Your task to perform on an android device: turn on javascript in the chrome app Image 0: 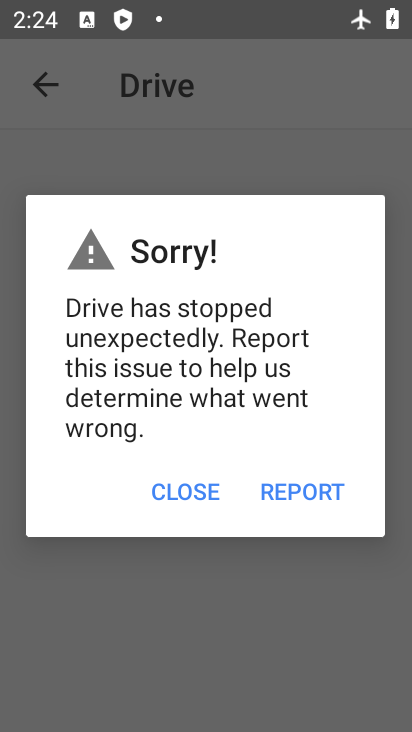
Step 0: press home button
Your task to perform on an android device: turn on javascript in the chrome app Image 1: 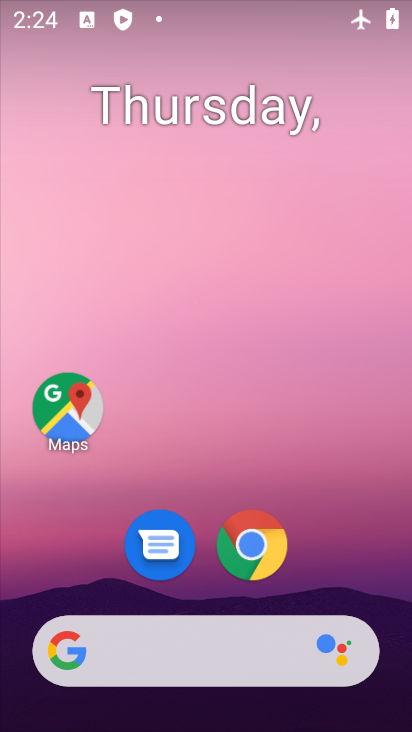
Step 1: drag from (234, 688) to (235, 162)
Your task to perform on an android device: turn on javascript in the chrome app Image 2: 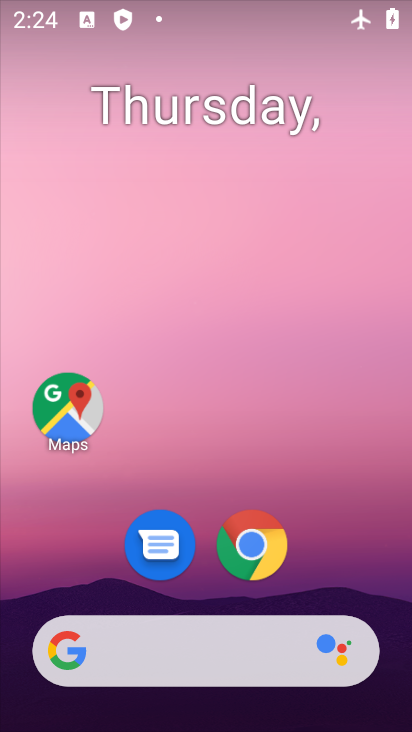
Step 2: click (270, 550)
Your task to perform on an android device: turn on javascript in the chrome app Image 3: 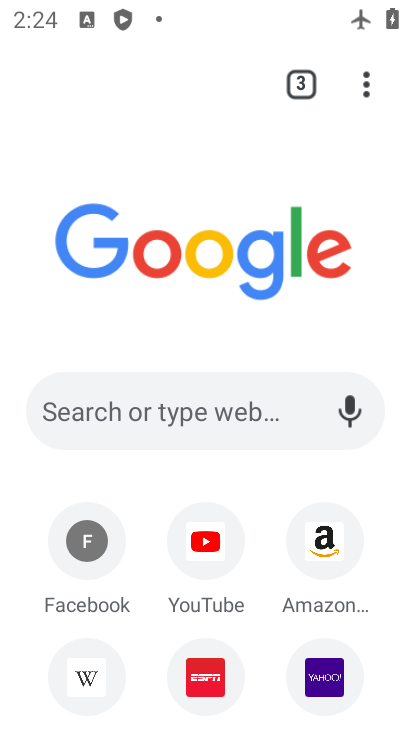
Step 3: click (366, 96)
Your task to perform on an android device: turn on javascript in the chrome app Image 4: 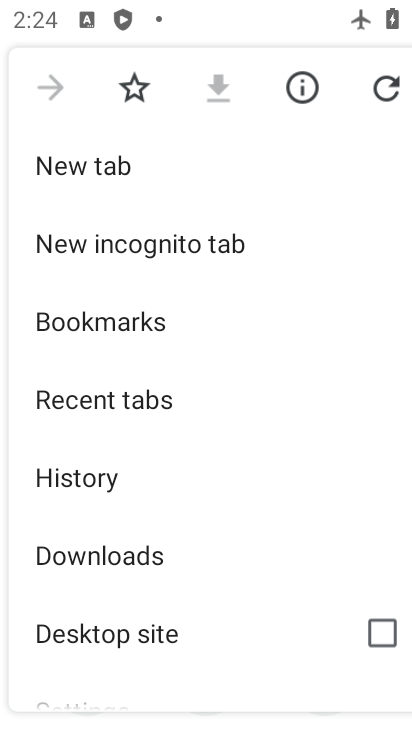
Step 4: drag from (239, 642) to (261, 215)
Your task to perform on an android device: turn on javascript in the chrome app Image 5: 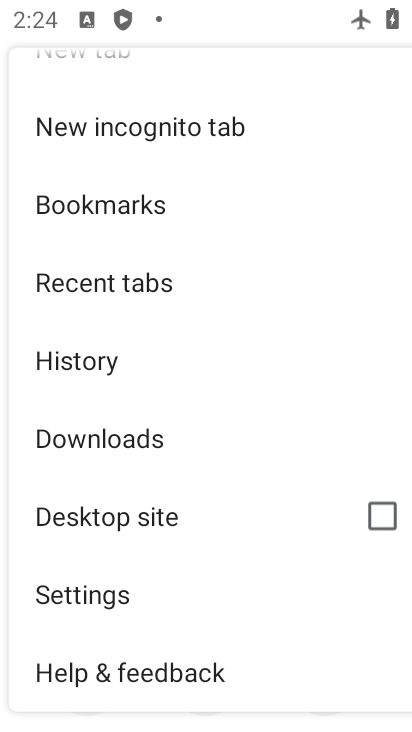
Step 5: click (99, 606)
Your task to perform on an android device: turn on javascript in the chrome app Image 6: 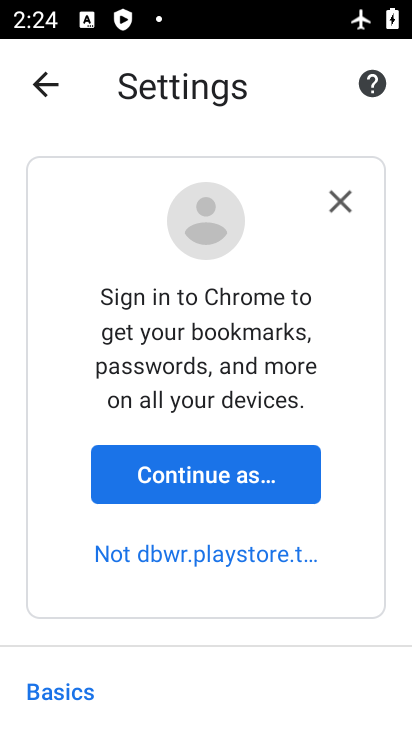
Step 6: click (330, 204)
Your task to perform on an android device: turn on javascript in the chrome app Image 7: 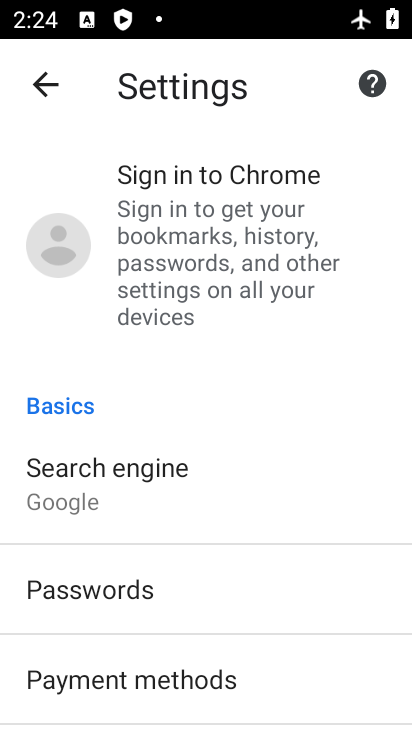
Step 7: drag from (293, 489) to (289, 137)
Your task to perform on an android device: turn on javascript in the chrome app Image 8: 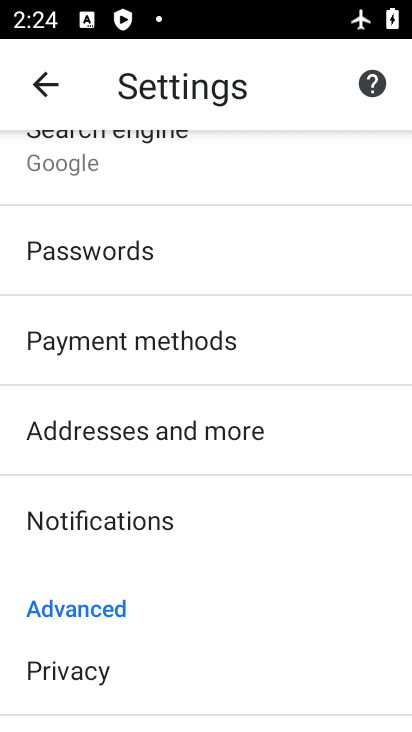
Step 8: drag from (231, 583) to (247, 210)
Your task to perform on an android device: turn on javascript in the chrome app Image 9: 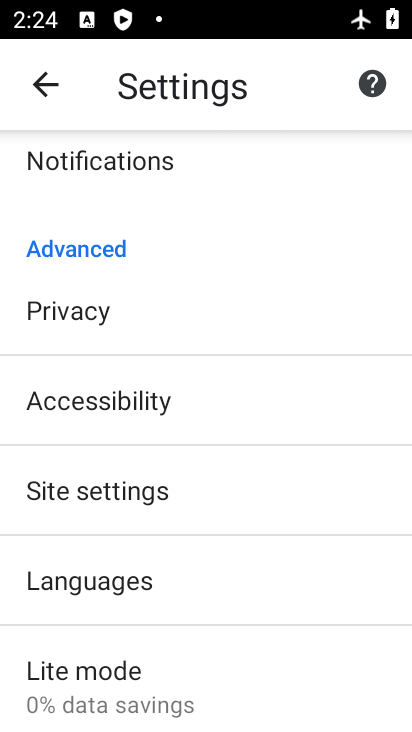
Step 9: click (227, 502)
Your task to perform on an android device: turn on javascript in the chrome app Image 10: 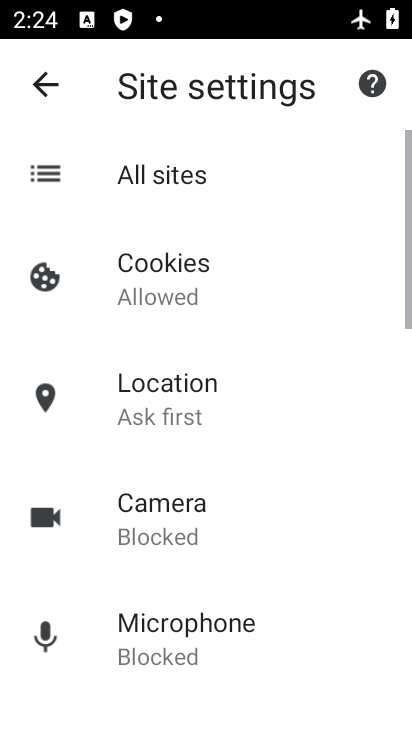
Step 10: drag from (266, 475) to (283, 162)
Your task to perform on an android device: turn on javascript in the chrome app Image 11: 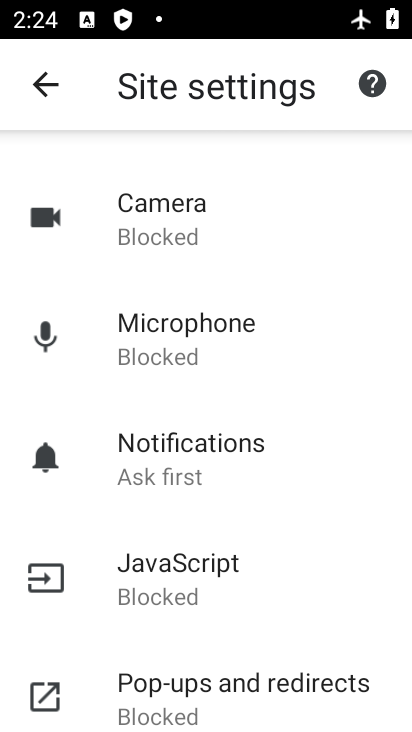
Step 11: click (179, 579)
Your task to perform on an android device: turn on javascript in the chrome app Image 12: 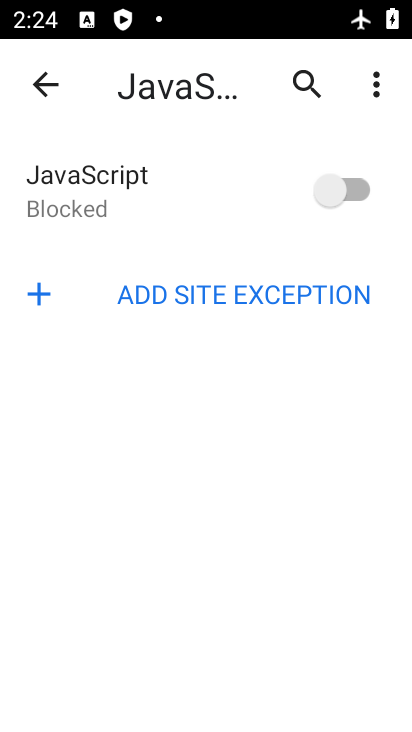
Step 12: click (340, 192)
Your task to perform on an android device: turn on javascript in the chrome app Image 13: 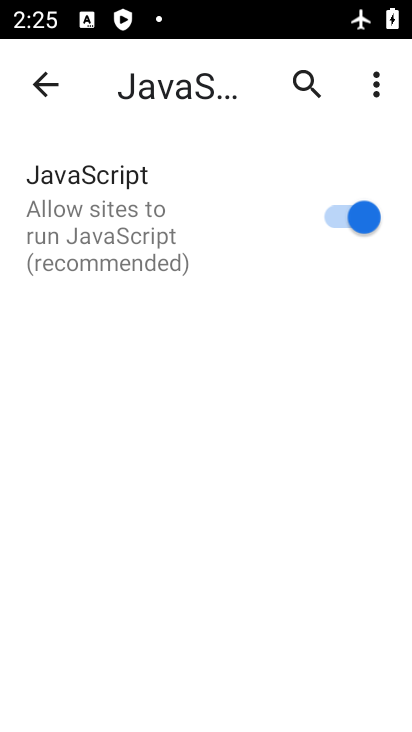
Step 13: task complete